Your task to perform on an android device: toggle sleep mode Image 0: 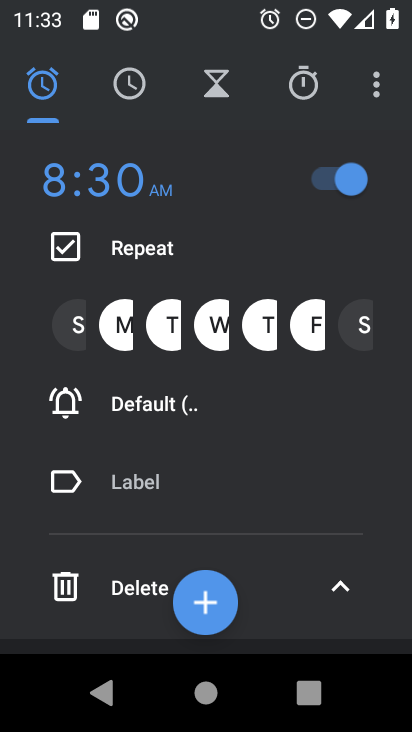
Step 0: press home button
Your task to perform on an android device: toggle sleep mode Image 1: 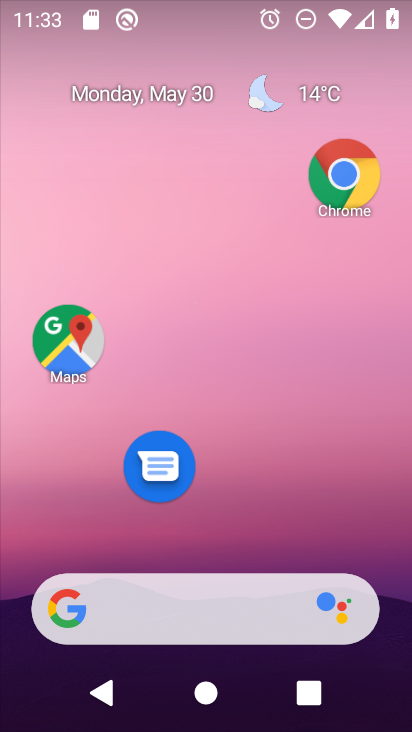
Step 1: drag from (254, 397) to (236, 206)
Your task to perform on an android device: toggle sleep mode Image 2: 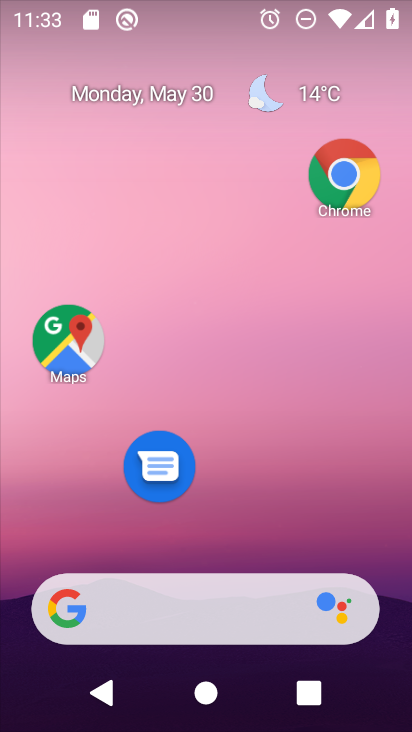
Step 2: drag from (210, 438) to (219, 98)
Your task to perform on an android device: toggle sleep mode Image 3: 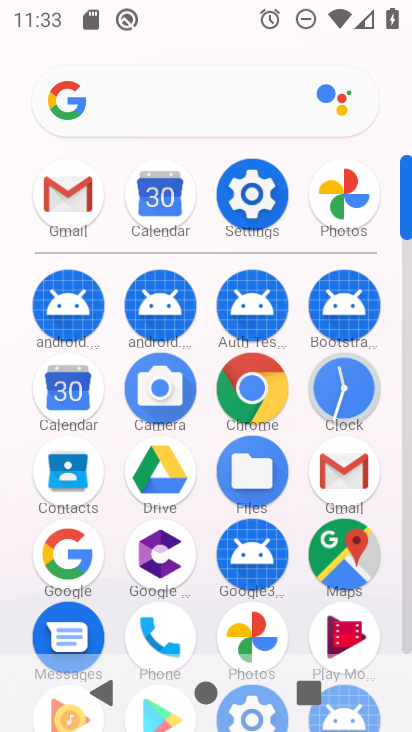
Step 3: click (267, 151)
Your task to perform on an android device: toggle sleep mode Image 4: 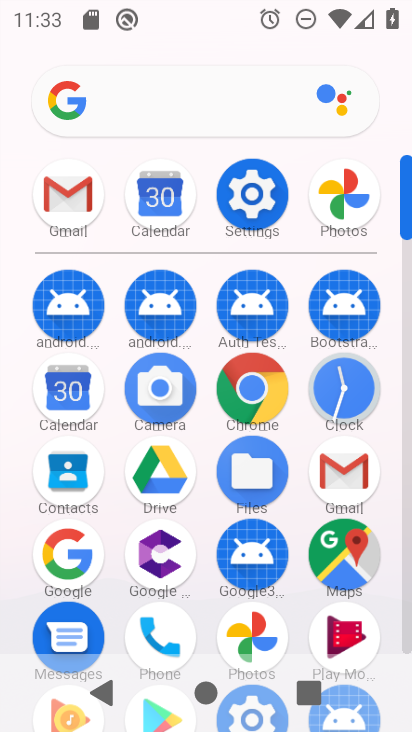
Step 4: click (262, 202)
Your task to perform on an android device: toggle sleep mode Image 5: 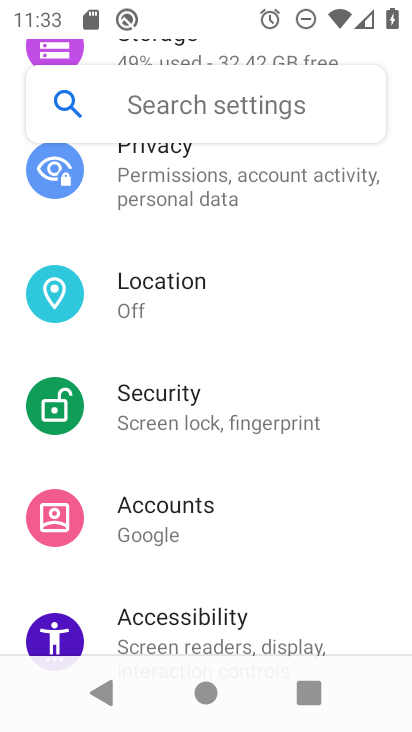
Step 5: drag from (235, 257) to (259, 563)
Your task to perform on an android device: toggle sleep mode Image 6: 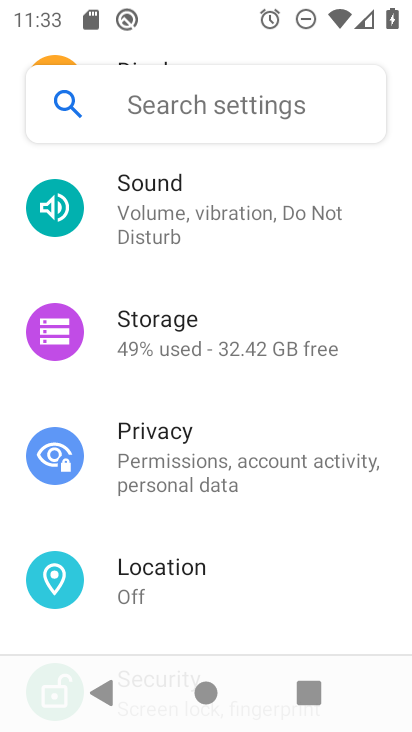
Step 6: drag from (322, 252) to (328, 475)
Your task to perform on an android device: toggle sleep mode Image 7: 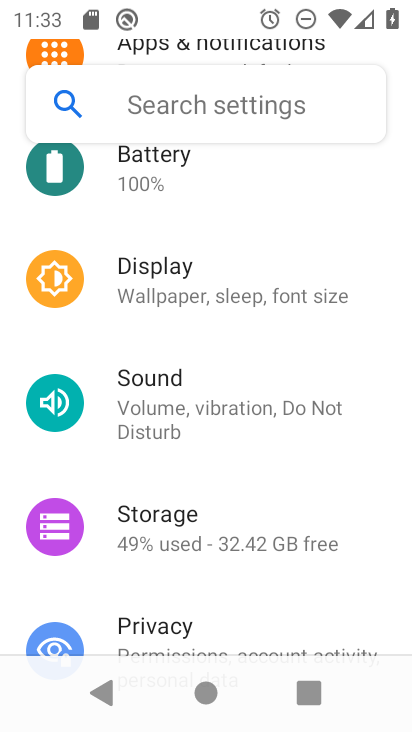
Step 7: click (305, 297)
Your task to perform on an android device: toggle sleep mode Image 8: 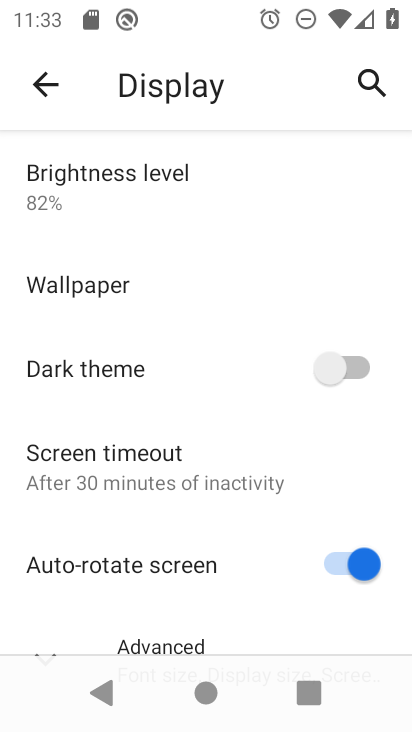
Step 8: drag from (235, 540) to (235, 155)
Your task to perform on an android device: toggle sleep mode Image 9: 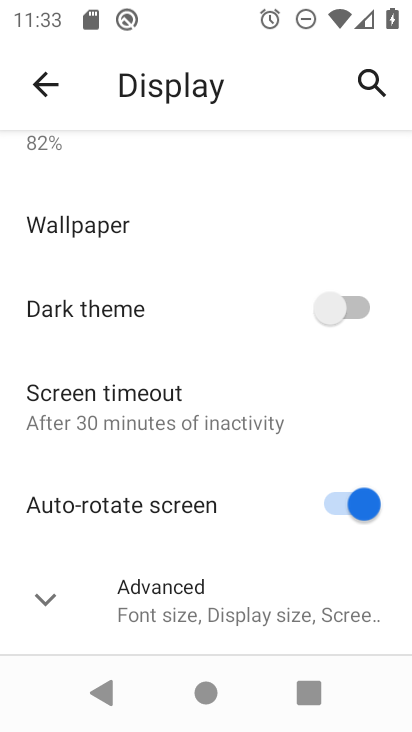
Step 9: click (246, 616)
Your task to perform on an android device: toggle sleep mode Image 10: 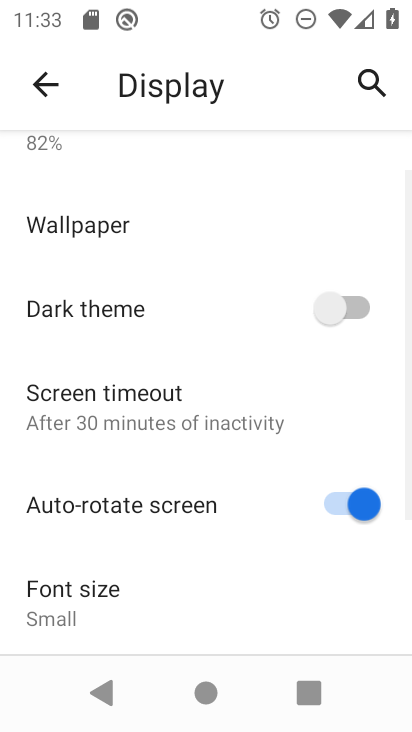
Step 10: task complete